Your task to perform on an android device: Open wifi settings Image 0: 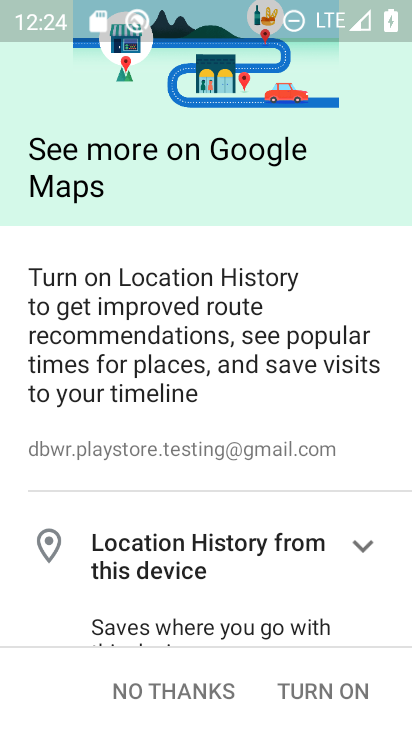
Step 0: press home button
Your task to perform on an android device: Open wifi settings Image 1: 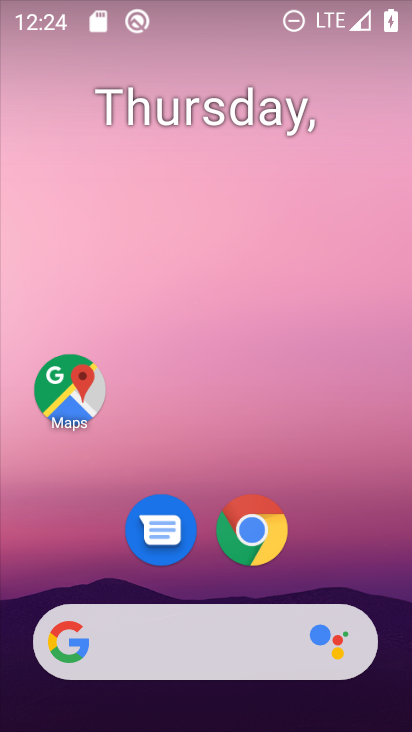
Step 1: drag from (223, 623) to (222, 82)
Your task to perform on an android device: Open wifi settings Image 2: 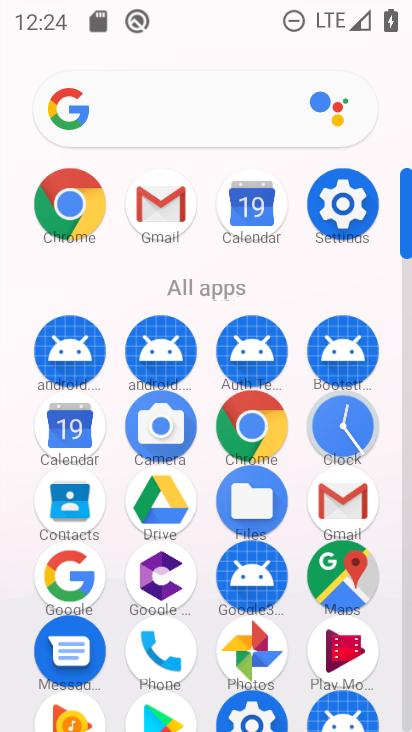
Step 2: click (363, 208)
Your task to perform on an android device: Open wifi settings Image 3: 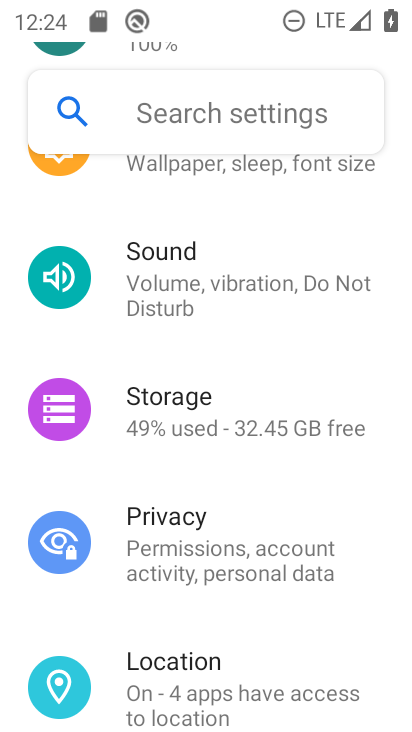
Step 3: drag from (222, 179) to (213, 542)
Your task to perform on an android device: Open wifi settings Image 4: 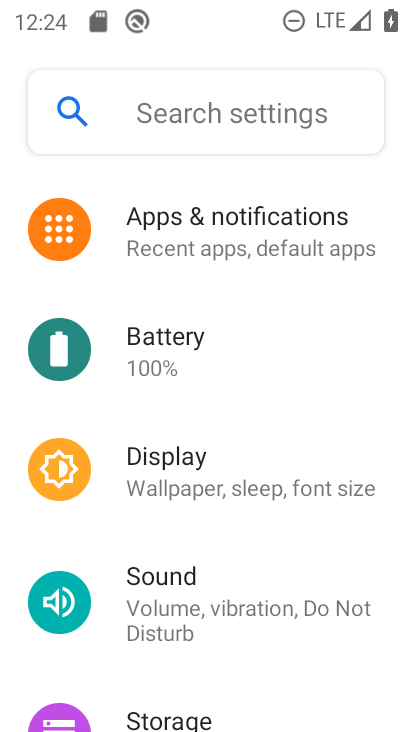
Step 4: drag from (190, 226) to (208, 724)
Your task to perform on an android device: Open wifi settings Image 5: 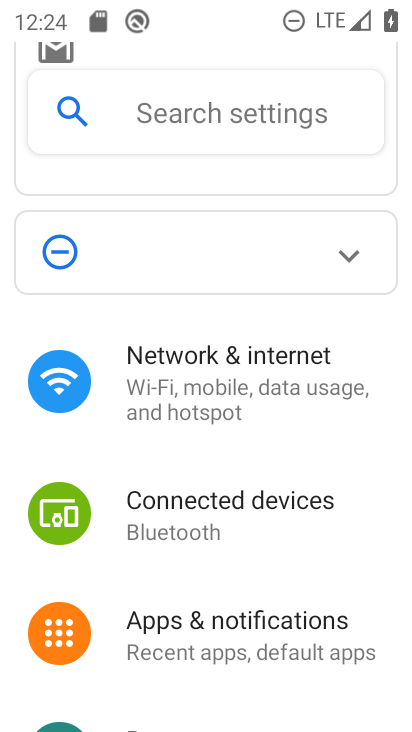
Step 5: click (210, 389)
Your task to perform on an android device: Open wifi settings Image 6: 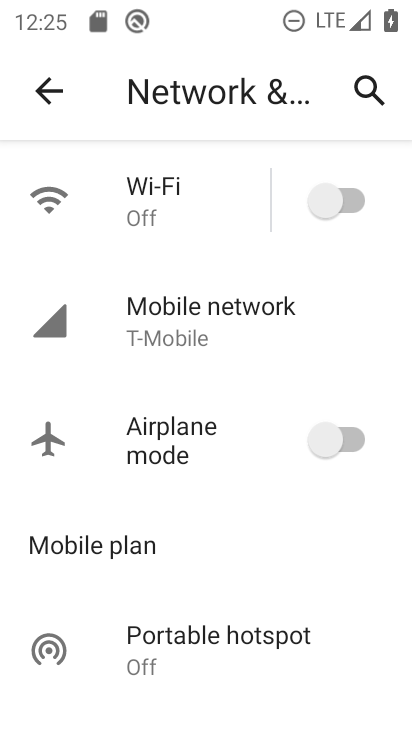
Step 6: click (163, 207)
Your task to perform on an android device: Open wifi settings Image 7: 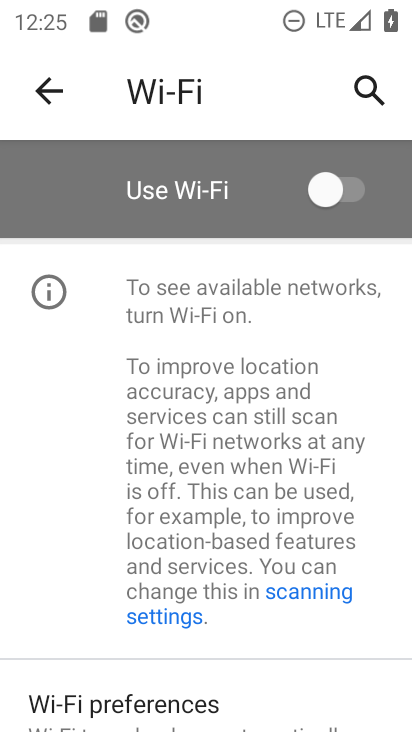
Step 7: task complete